Your task to perform on an android device: turn off picture-in-picture Image 0: 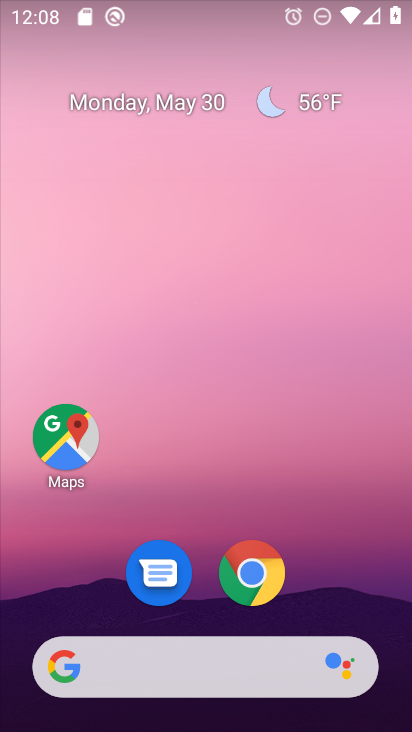
Step 0: drag from (174, 676) to (241, 77)
Your task to perform on an android device: turn off picture-in-picture Image 1: 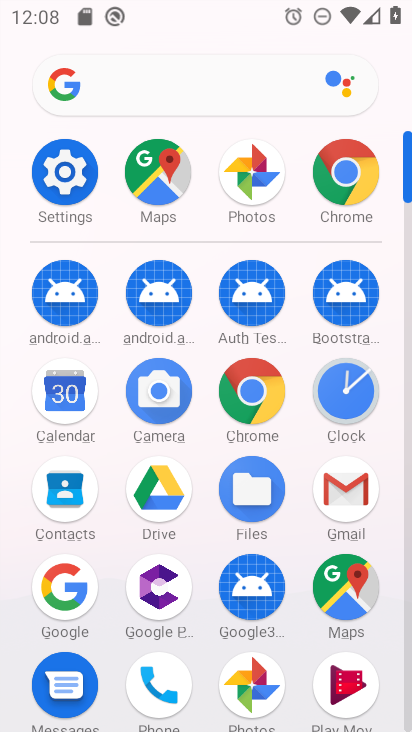
Step 1: click (66, 177)
Your task to perform on an android device: turn off picture-in-picture Image 2: 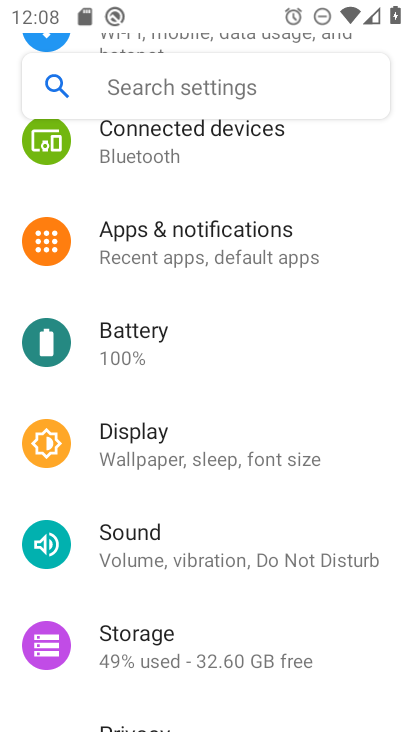
Step 2: drag from (303, 671) to (339, 155)
Your task to perform on an android device: turn off picture-in-picture Image 3: 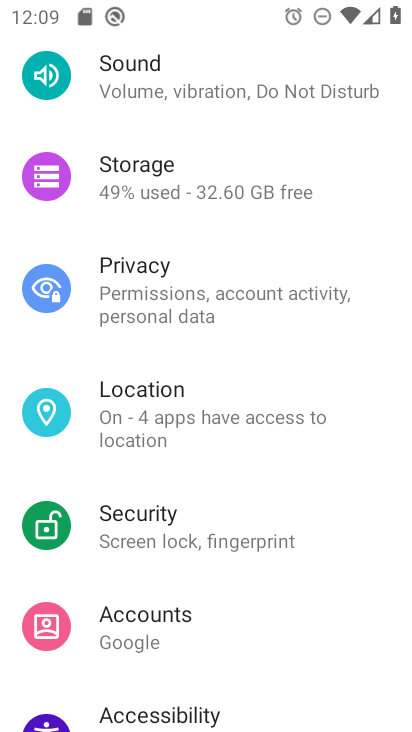
Step 3: drag from (246, 644) to (256, 206)
Your task to perform on an android device: turn off picture-in-picture Image 4: 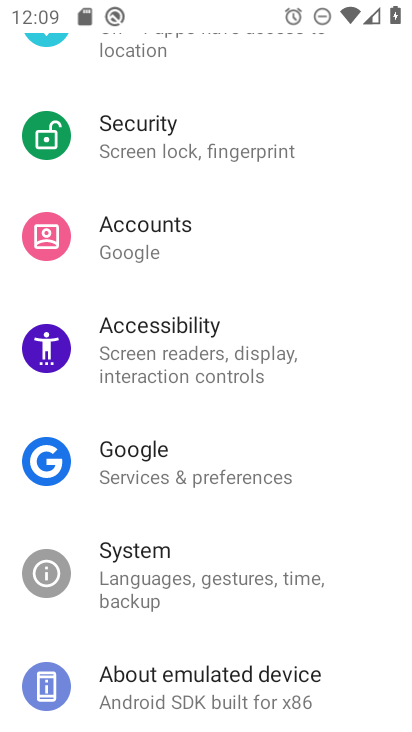
Step 4: click (201, 581)
Your task to perform on an android device: turn off picture-in-picture Image 5: 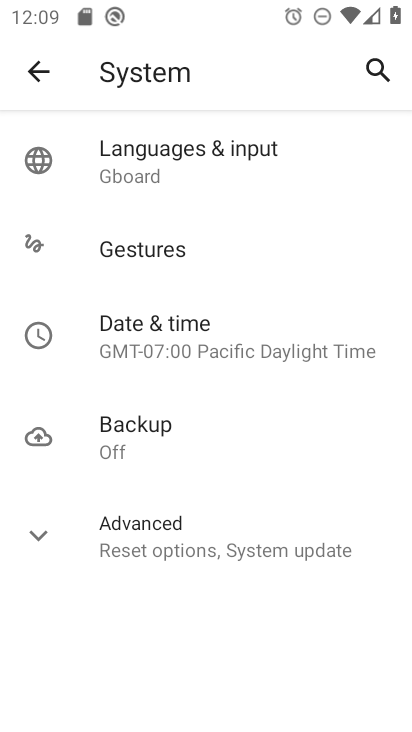
Step 5: click (220, 141)
Your task to perform on an android device: turn off picture-in-picture Image 6: 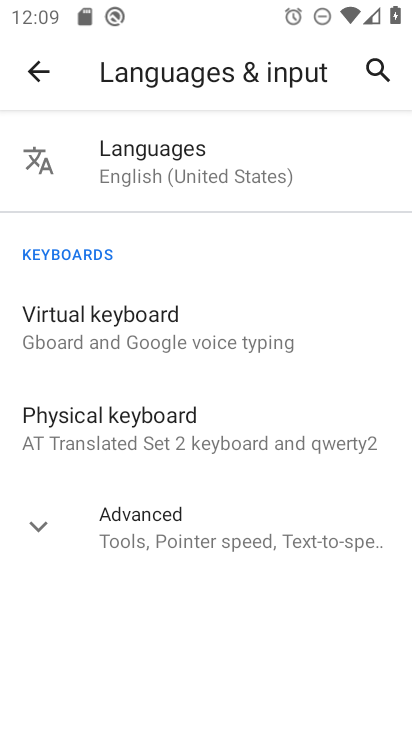
Step 6: click (203, 319)
Your task to perform on an android device: turn off picture-in-picture Image 7: 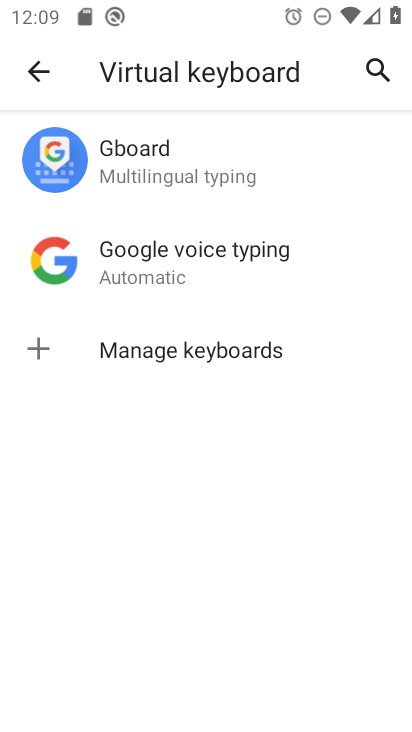
Step 7: click (214, 155)
Your task to perform on an android device: turn off picture-in-picture Image 8: 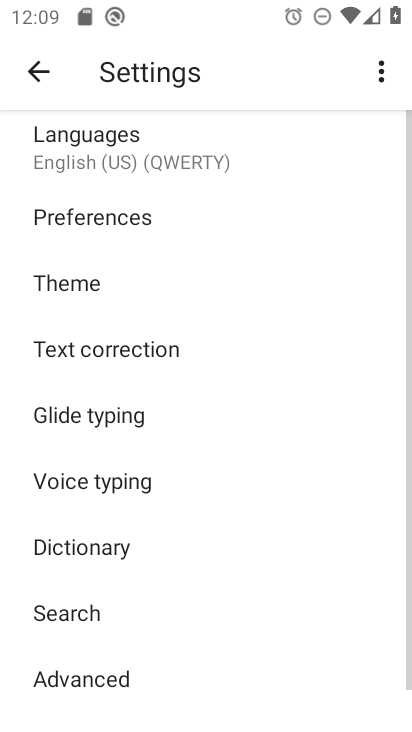
Step 8: click (146, 275)
Your task to perform on an android device: turn off picture-in-picture Image 9: 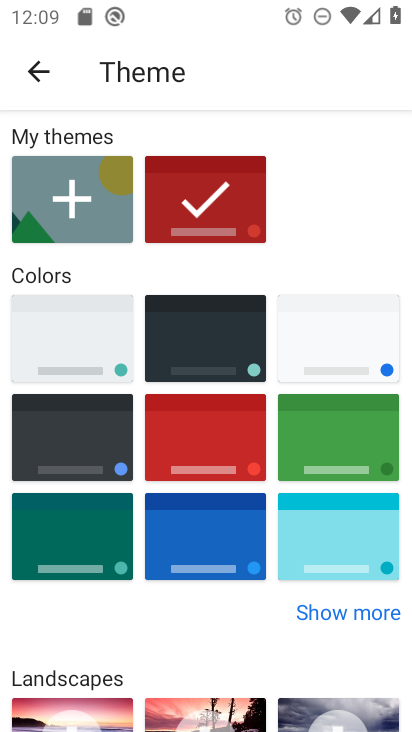
Step 9: click (200, 451)
Your task to perform on an android device: turn off picture-in-picture Image 10: 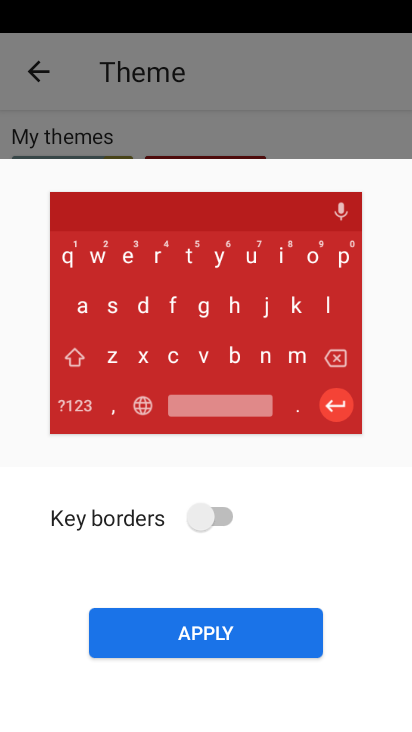
Step 10: click (182, 630)
Your task to perform on an android device: turn off picture-in-picture Image 11: 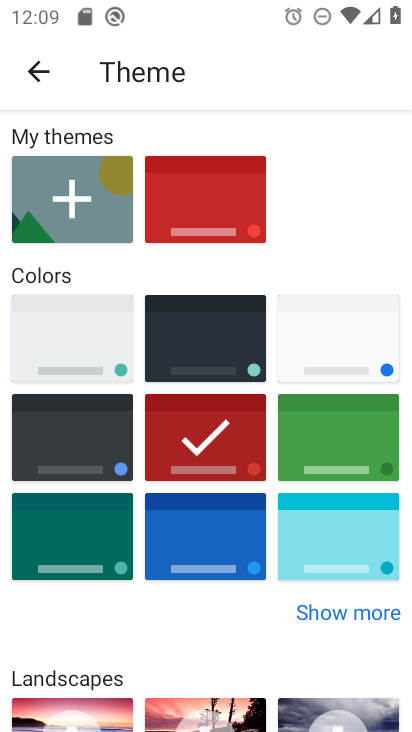
Step 11: task complete